Your task to perform on an android device: Open Amazon Image 0: 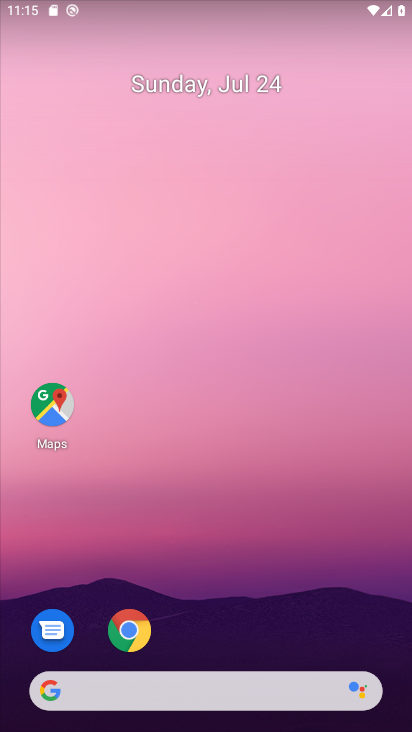
Step 0: drag from (164, 672) to (258, 74)
Your task to perform on an android device: Open Amazon Image 1: 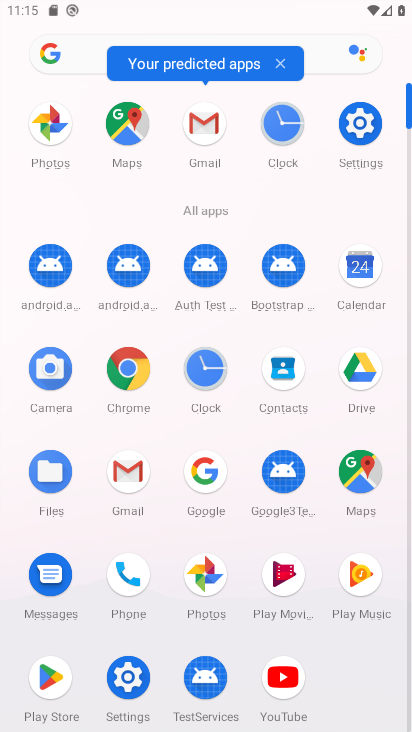
Step 1: click (208, 473)
Your task to perform on an android device: Open Amazon Image 2: 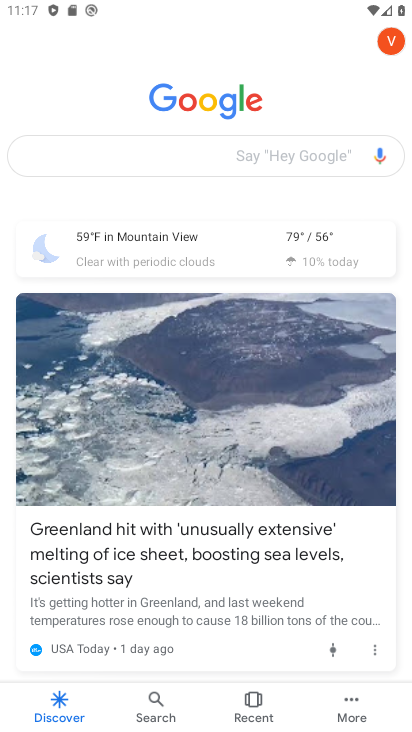
Step 2: click (175, 145)
Your task to perform on an android device: Open Amazon Image 3: 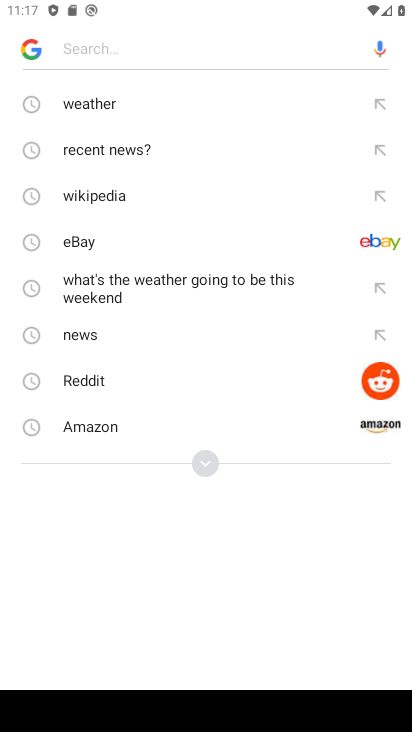
Step 3: click (159, 424)
Your task to perform on an android device: Open Amazon Image 4: 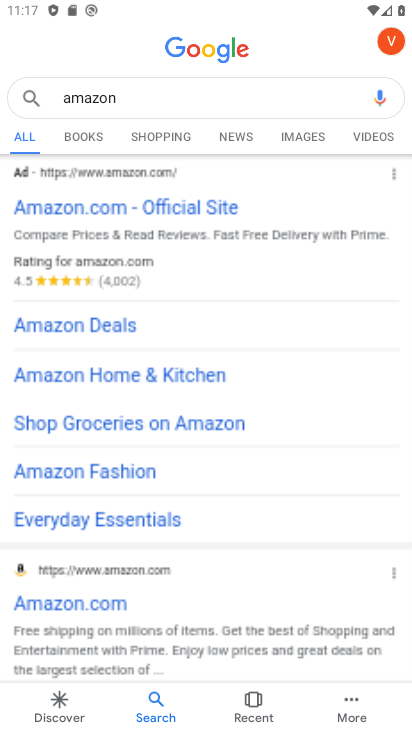
Step 4: task complete